Your task to perform on an android device: Open Google Chrome and click the shortcut for Amazon.com Image 0: 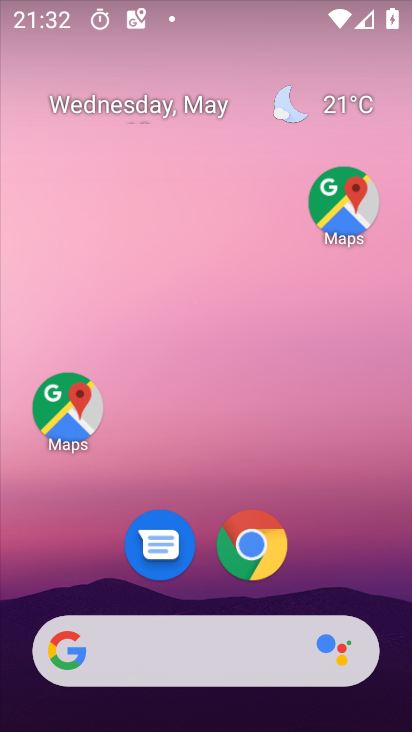
Step 0: click (257, 552)
Your task to perform on an android device: Open Google Chrome and click the shortcut for Amazon.com Image 1: 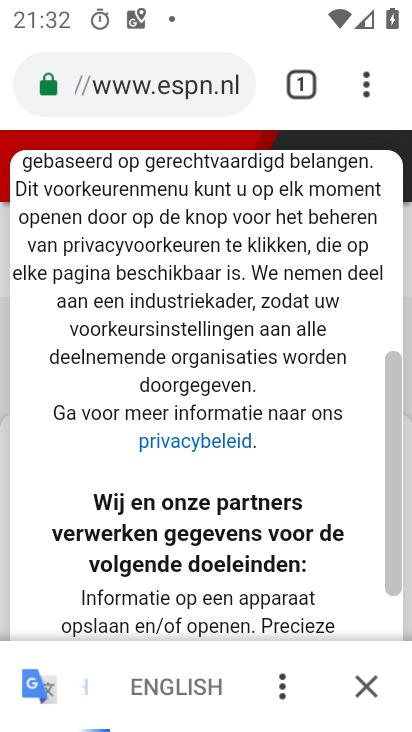
Step 1: click (371, 71)
Your task to perform on an android device: Open Google Chrome and click the shortcut for Amazon.com Image 2: 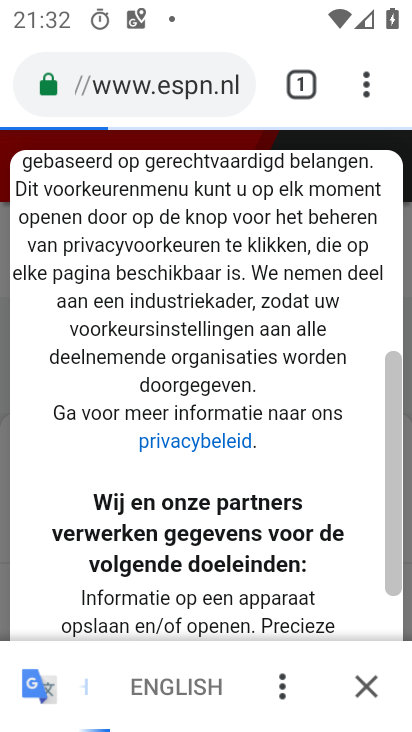
Step 2: click (371, 82)
Your task to perform on an android device: Open Google Chrome and click the shortcut for Amazon.com Image 3: 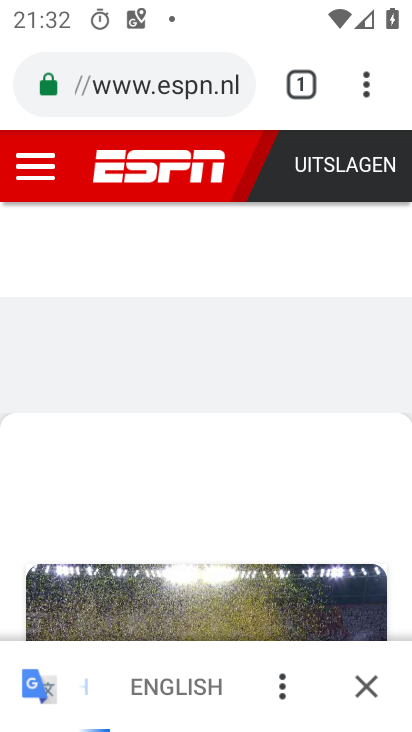
Step 3: click (388, 102)
Your task to perform on an android device: Open Google Chrome and click the shortcut for Amazon.com Image 4: 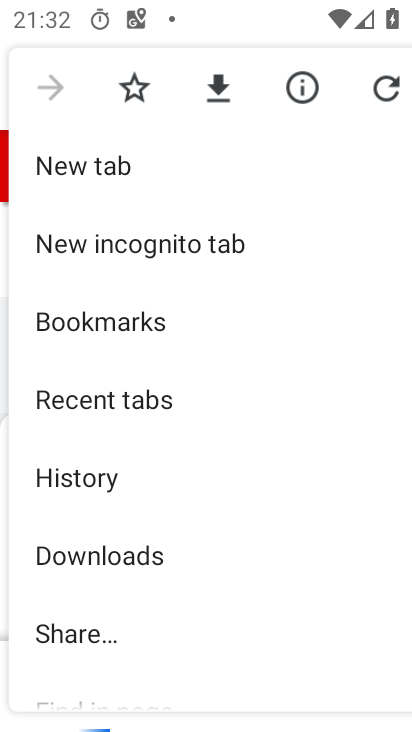
Step 4: click (86, 172)
Your task to perform on an android device: Open Google Chrome and click the shortcut for Amazon.com Image 5: 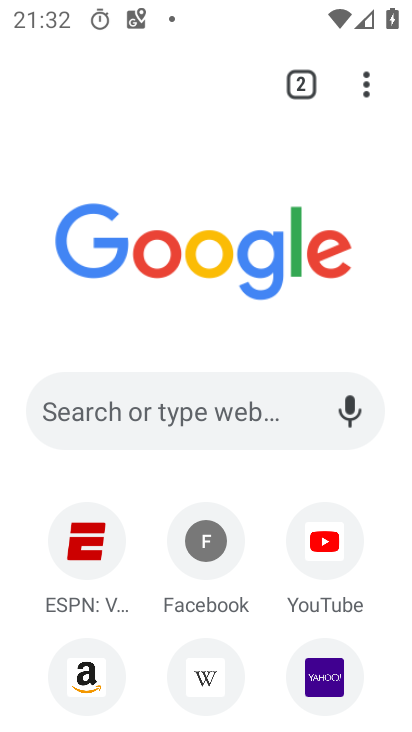
Step 5: click (111, 677)
Your task to perform on an android device: Open Google Chrome and click the shortcut for Amazon.com Image 6: 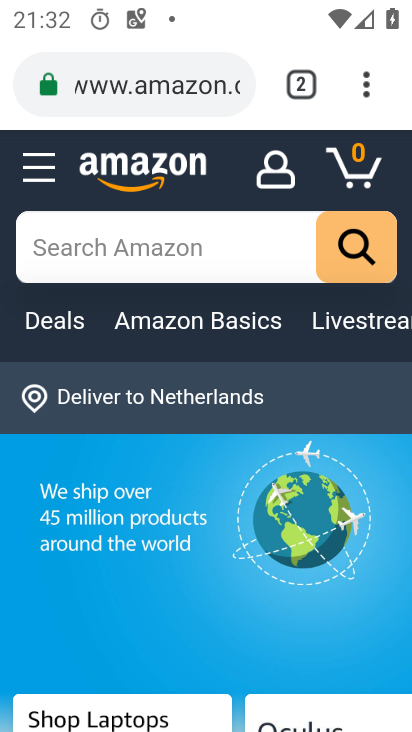
Step 6: task complete